Your task to perform on an android device: toggle pop-ups in chrome Image 0: 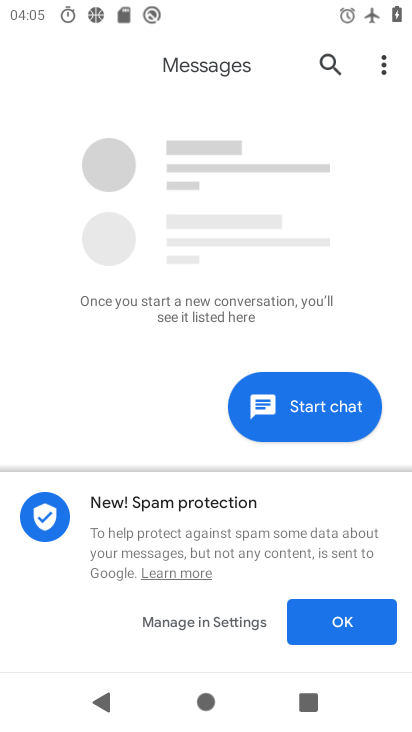
Step 0: press back button
Your task to perform on an android device: toggle pop-ups in chrome Image 1: 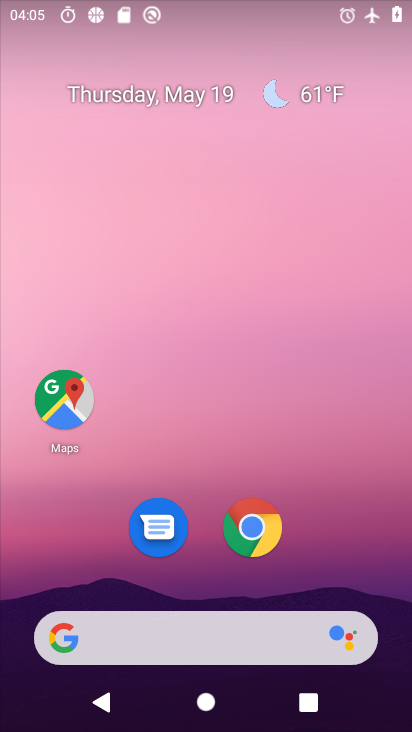
Step 1: click (260, 521)
Your task to perform on an android device: toggle pop-ups in chrome Image 2: 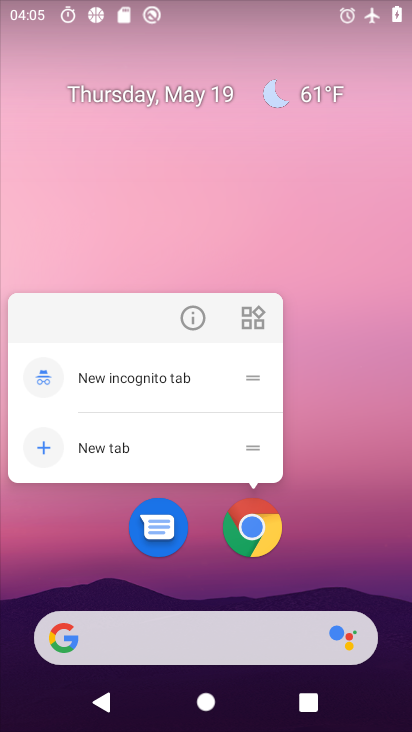
Step 2: click (241, 538)
Your task to perform on an android device: toggle pop-ups in chrome Image 3: 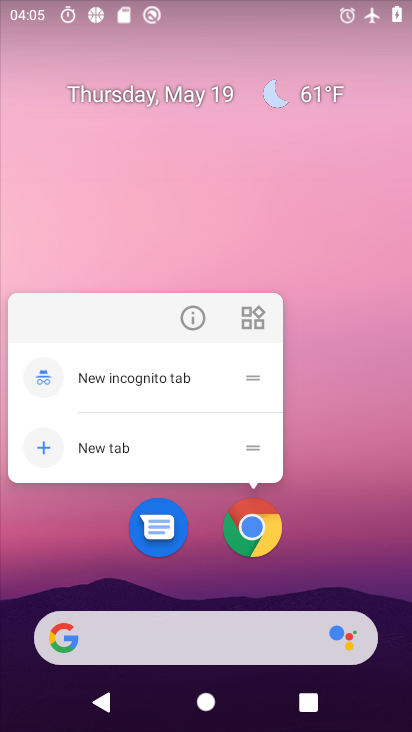
Step 3: click (257, 534)
Your task to perform on an android device: toggle pop-ups in chrome Image 4: 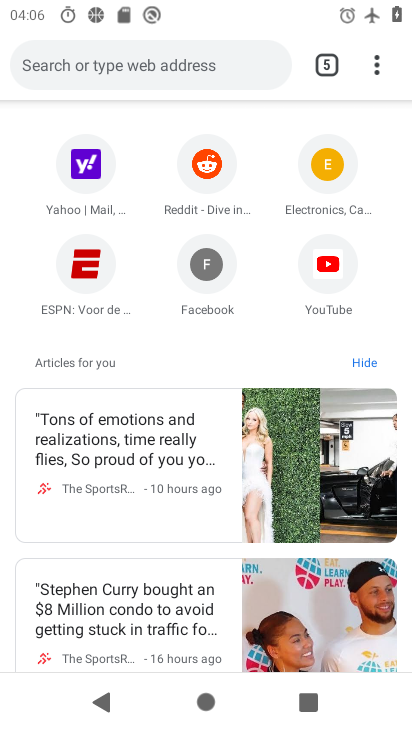
Step 4: drag from (376, 56) to (151, 533)
Your task to perform on an android device: toggle pop-ups in chrome Image 5: 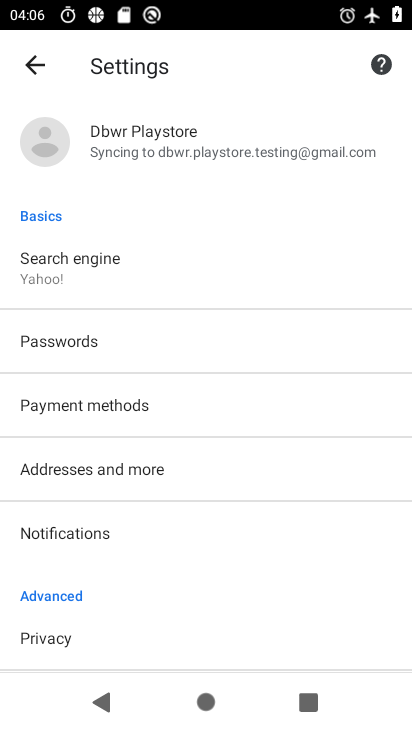
Step 5: drag from (149, 601) to (292, 147)
Your task to perform on an android device: toggle pop-ups in chrome Image 6: 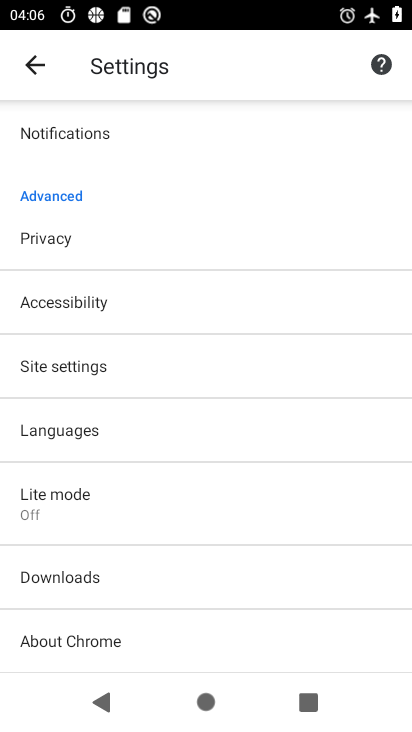
Step 6: click (95, 365)
Your task to perform on an android device: toggle pop-ups in chrome Image 7: 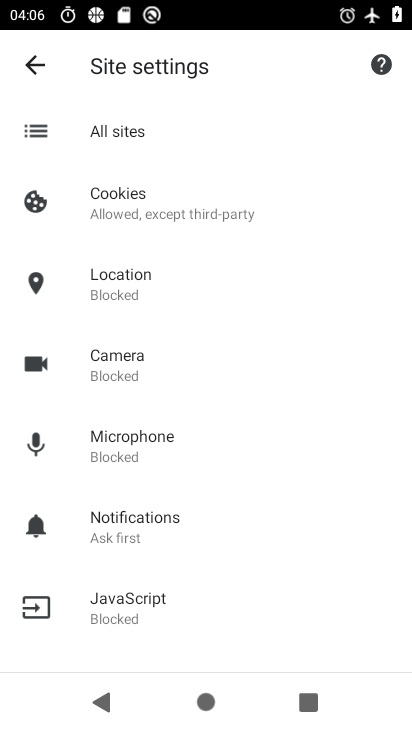
Step 7: drag from (130, 607) to (245, 253)
Your task to perform on an android device: toggle pop-ups in chrome Image 8: 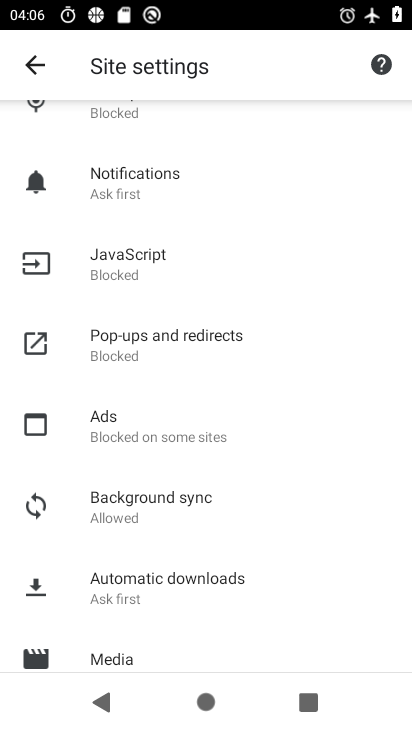
Step 8: click (138, 341)
Your task to perform on an android device: toggle pop-ups in chrome Image 9: 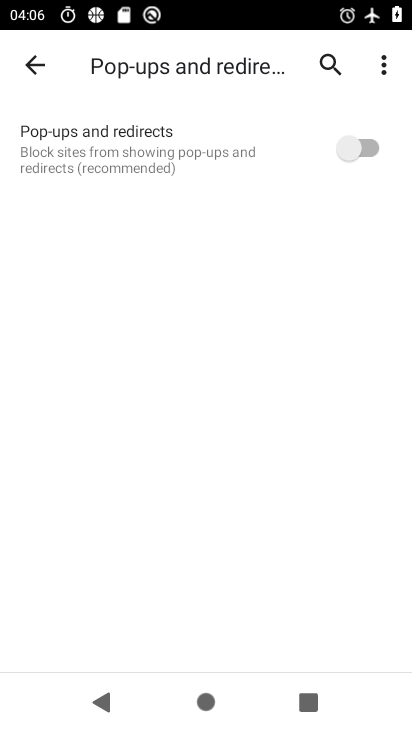
Step 9: click (362, 152)
Your task to perform on an android device: toggle pop-ups in chrome Image 10: 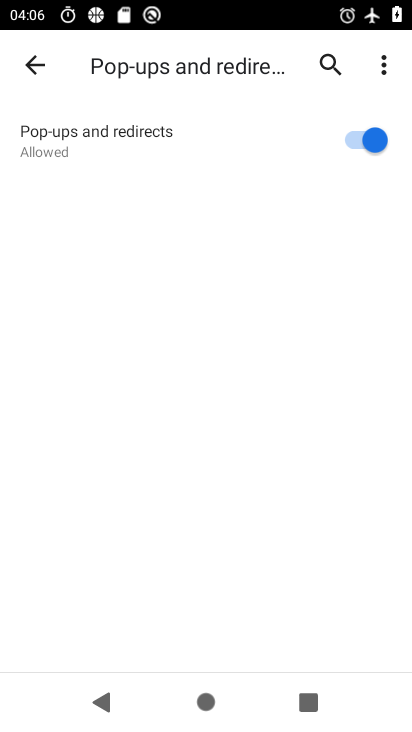
Step 10: task complete